Your task to perform on an android device: Open internet settings Image 0: 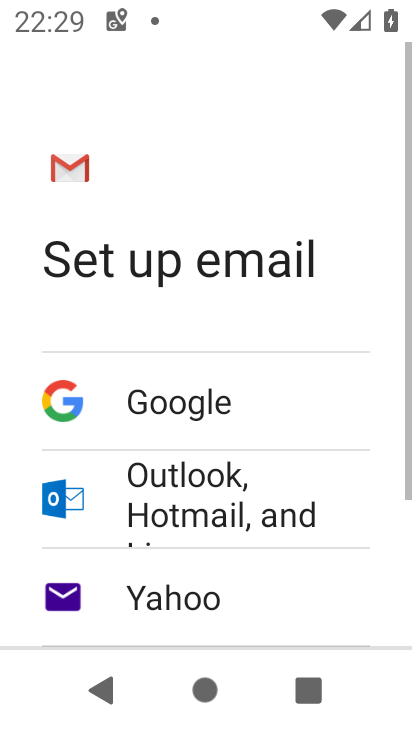
Step 0: press home button
Your task to perform on an android device: Open internet settings Image 1: 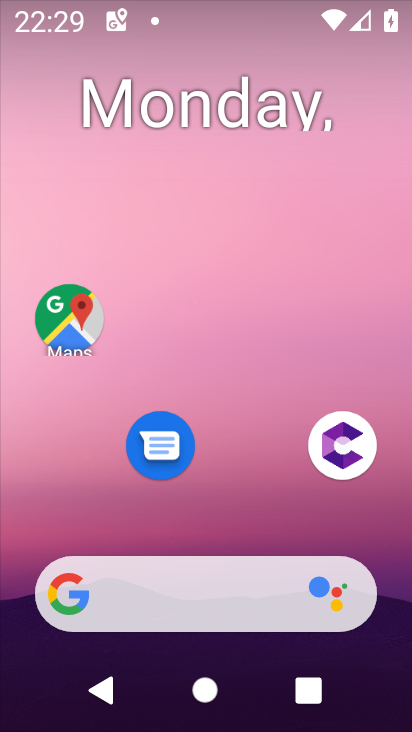
Step 1: drag from (243, 455) to (247, 158)
Your task to perform on an android device: Open internet settings Image 2: 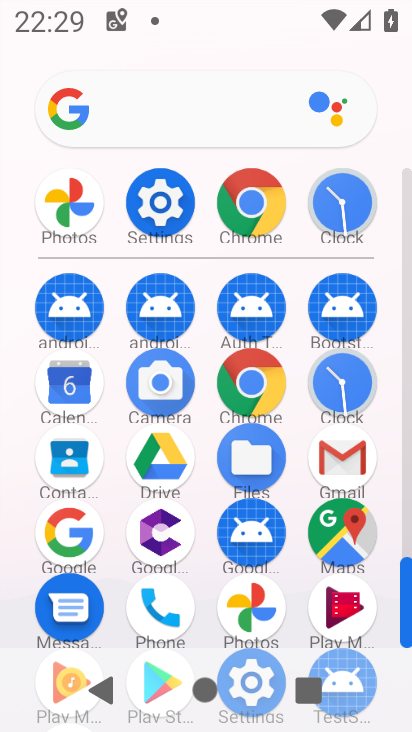
Step 2: click (174, 226)
Your task to perform on an android device: Open internet settings Image 3: 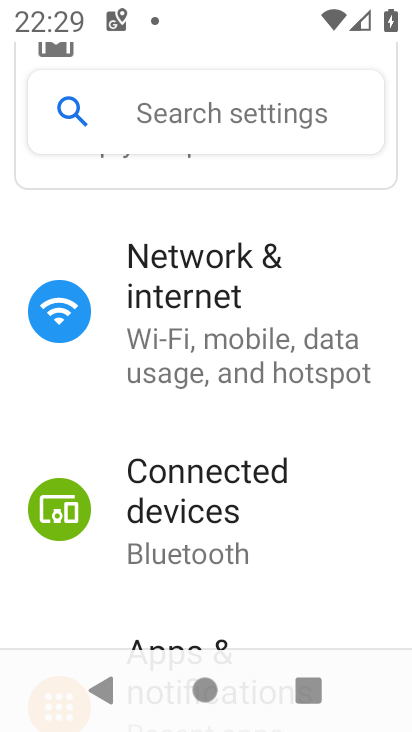
Step 3: drag from (305, 243) to (328, 343)
Your task to perform on an android device: Open internet settings Image 4: 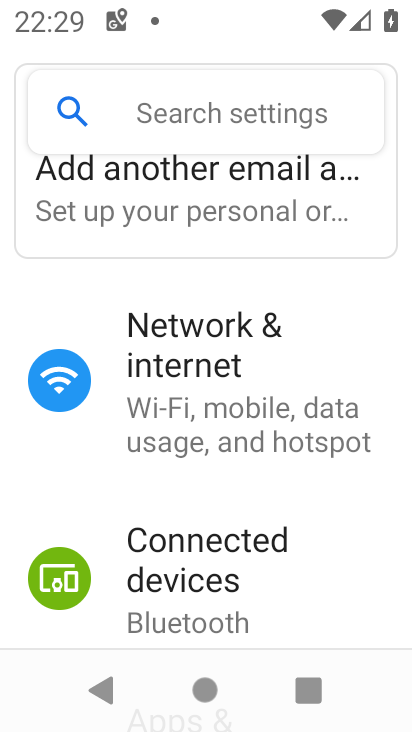
Step 4: click (185, 295)
Your task to perform on an android device: Open internet settings Image 5: 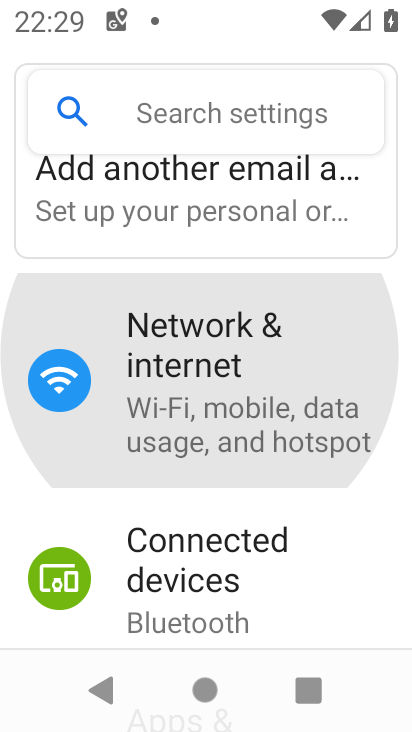
Step 5: click (186, 333)
Your task to perform on an android device: Open internet settings Image 6: 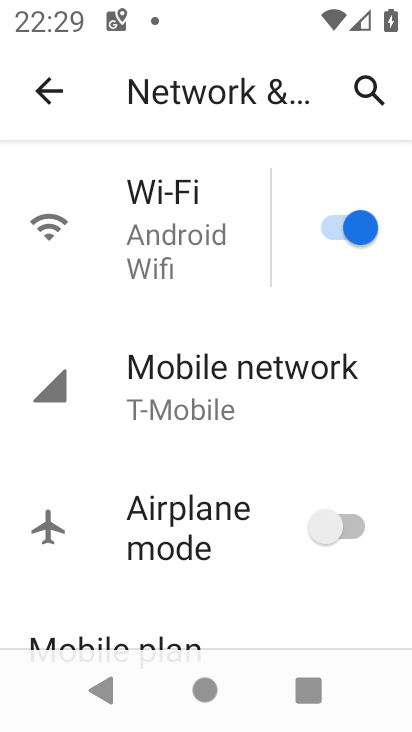
Step 6: task complete